Your task to perform on an android device: turn vacation reply on in the gmail app Image 0: 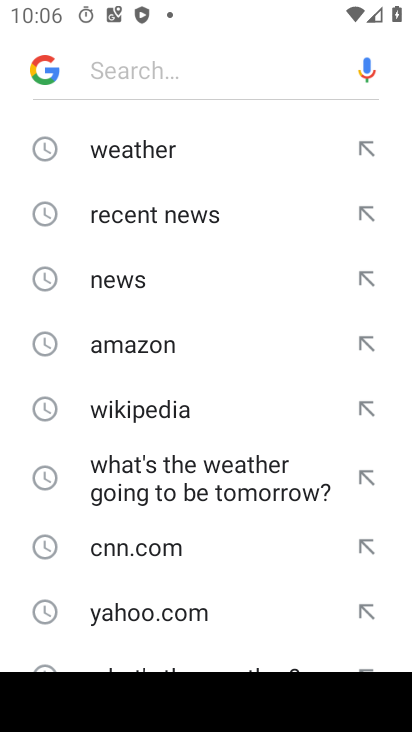
Step 0: press home button
Your task to perform on an android device: turn vacation reply on in the gmail app Image 1: 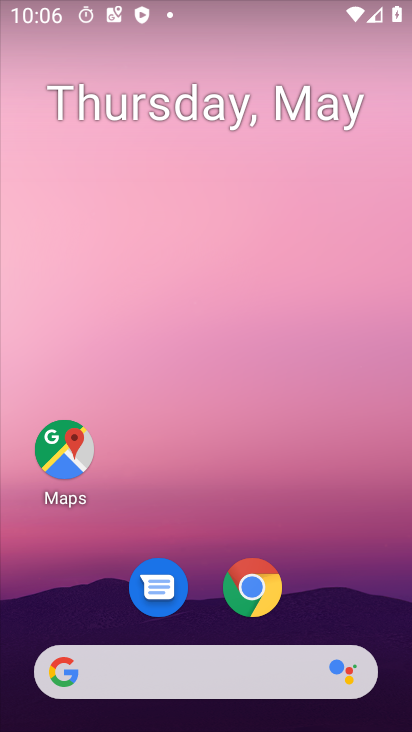
Step 1: drag from (368, 644) to (349, 7)
Your task to perform on an android device: turn vacation reply on in the gmail app Image 2: 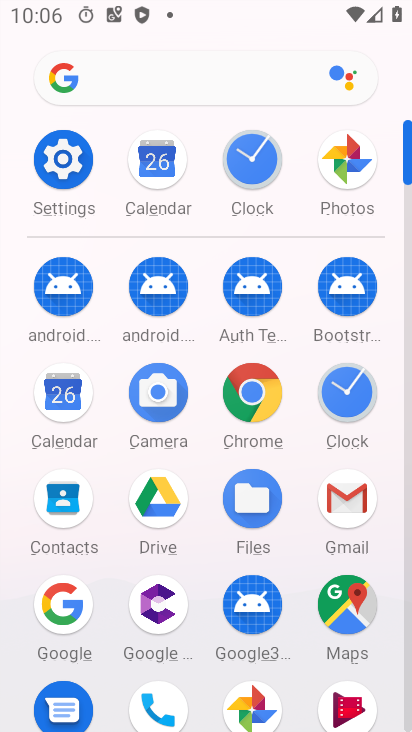
Step 2: click (345, 498)
Your task to perform on an android device: turn vacation reply on in the gmail app Image 3: 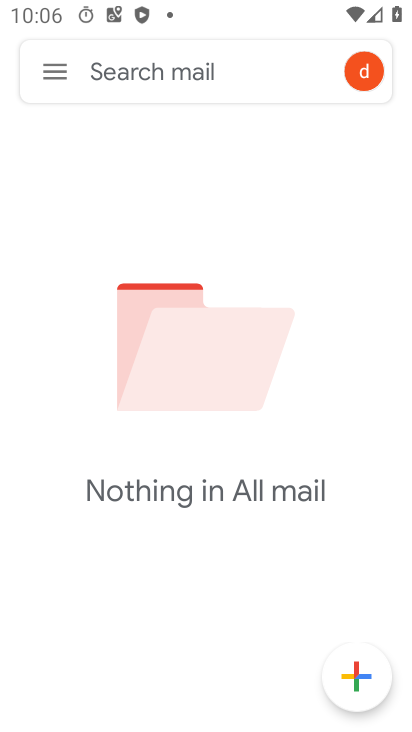
Step 3: click (46, 67)
Your task to perform on an android device: turn vacation reply on in the gmail app Image 4: 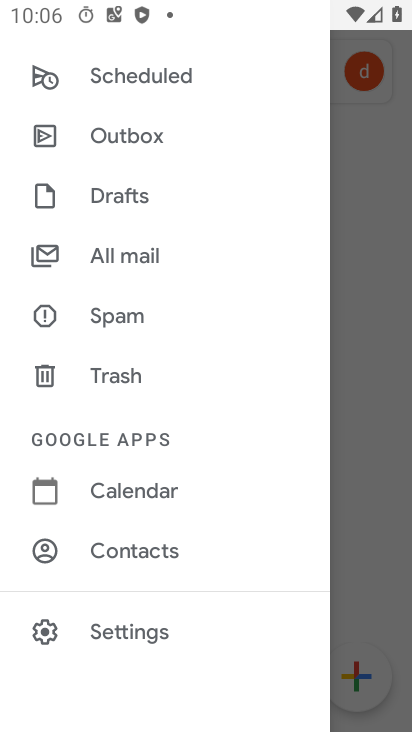
Step 4: click (129, 634)
Your task to perform on an android device: turn vacation reply on in the gmail app Image 5: 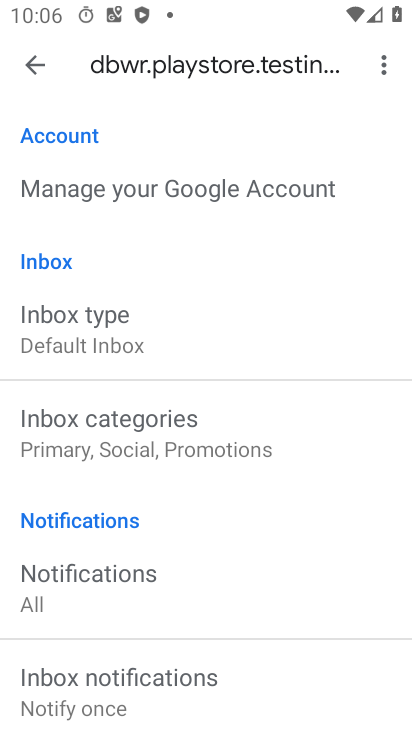
Step 5: drag from (205, 538) to (205, 1)
Your task to perform on an android device: turn vacation reply on in the gmail app Image 6: 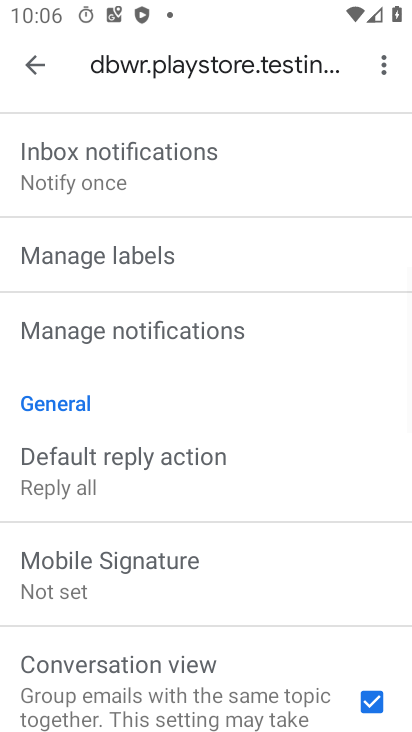
Step 6: drag from (204, 541) to (203, 27)
Your task to perform on an android device: turn vacation reply on in the gmail app Image 7: 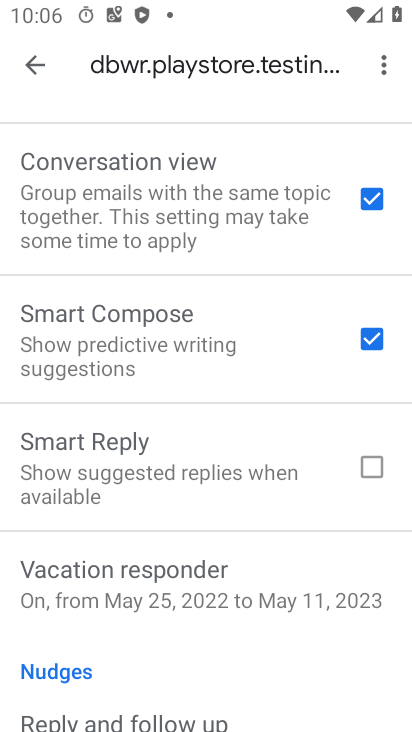
Step 7: click (160, 589)
Your task to perform on an android device: turn vacation reply on in the gmail app Image 8: 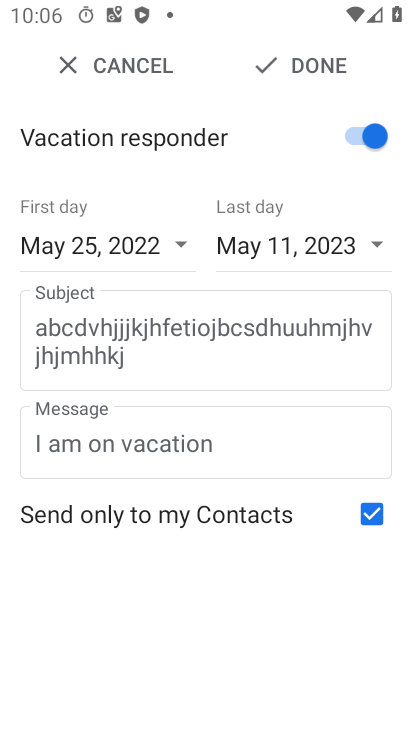
Step 8: click (286, 70)
Your task to perform on an android device: turn vacation reply on in the gmail app Image 9: 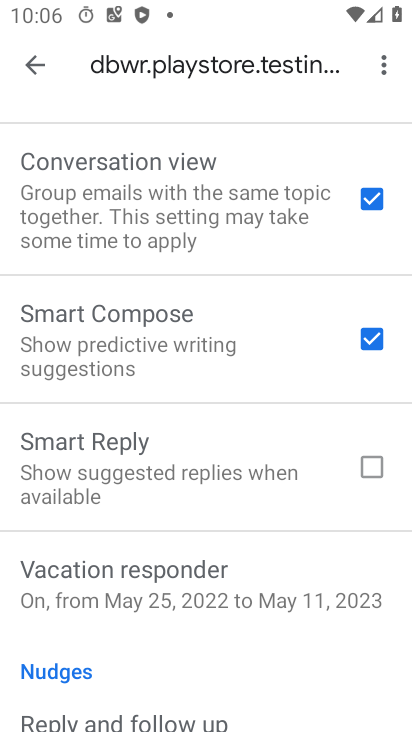
Step 9: task complete